Your task to perform on an android device: Go to Google Image 0: 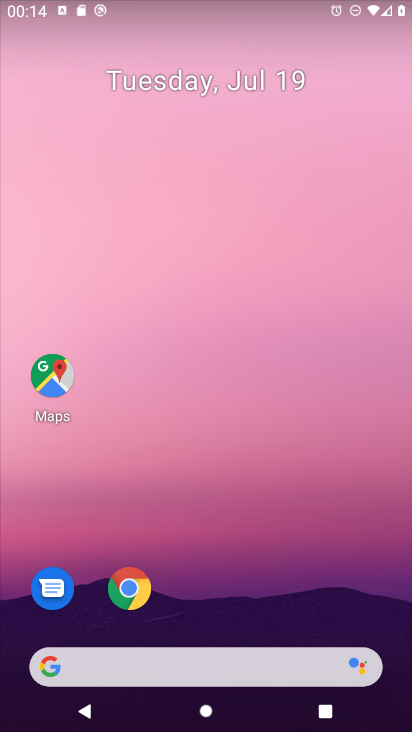
Step 0: click (125, 587)
Your task to perform on an android device: Go to Google Image 1: 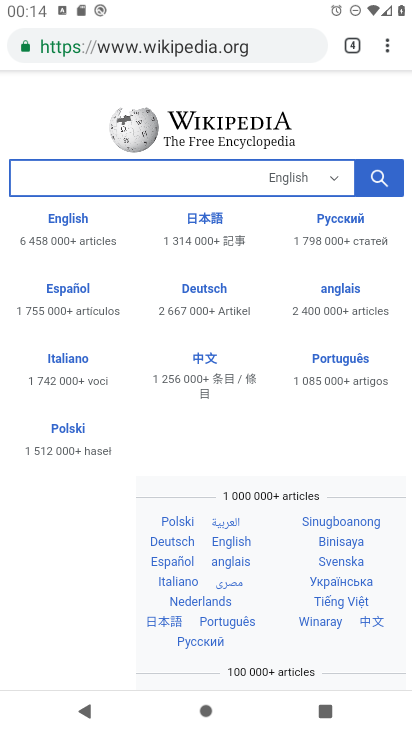
Step 1: task complete